Your task to perform on an android device: Open network settings Image 0: 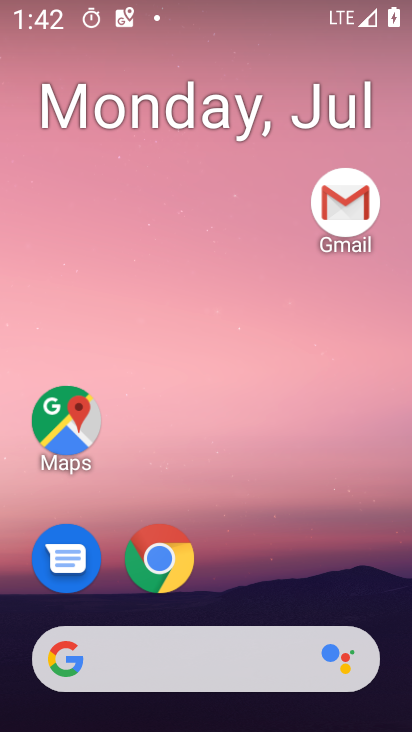
Step 0: drag from (259, 540) to (286, 172)
Your task to perform on an android device: Open network settings Image 1: 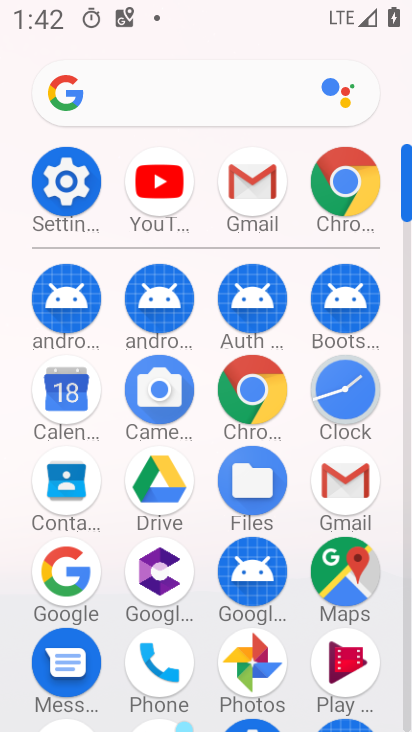
Step 1: click (73, 182)
Your task to perform on an android device: Open network settings Image 2: 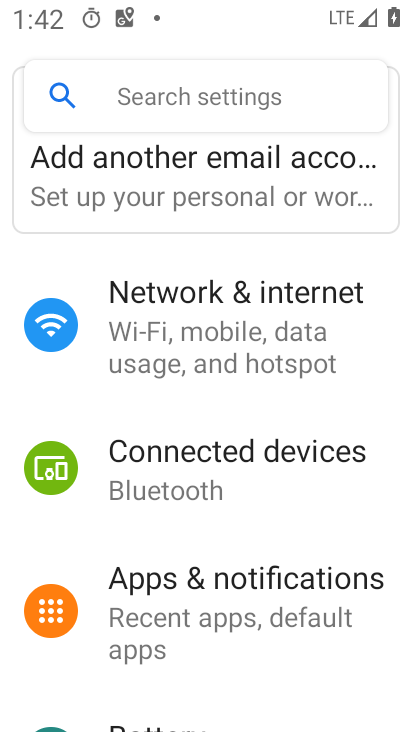
Step 2: drag from (333, 504) to (359, 343)
Your task to perform on an android device: Open network settings Image 3: 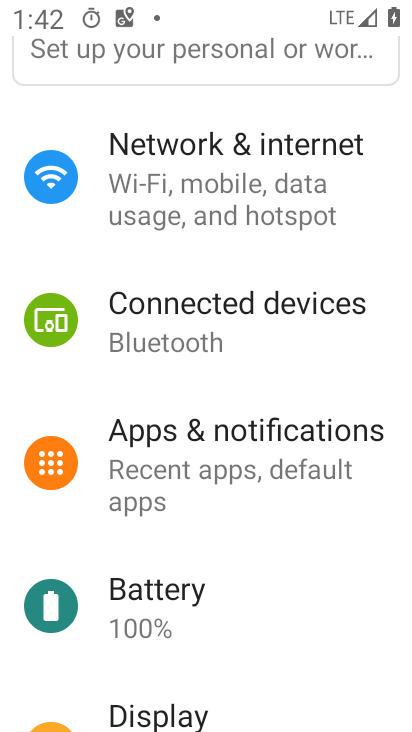
Step 3: drag from (374, 513) to (372, 412)
Your task to perform on an android device: Open network settings Image 4: 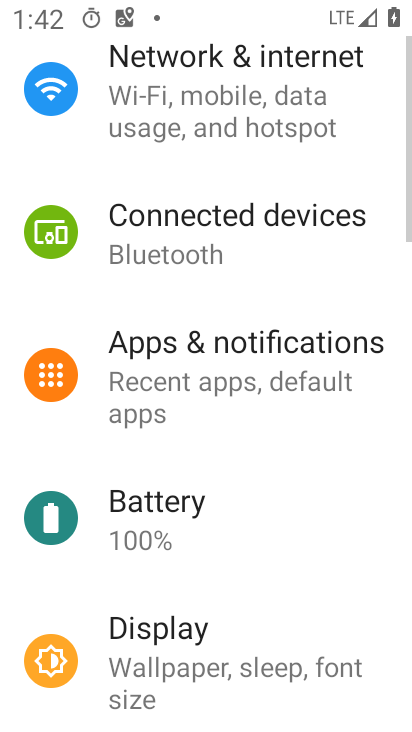
Step 4: drag from (367, 517) to (364, 440)
Your task to perform on an android device: Open network settings Image 5: 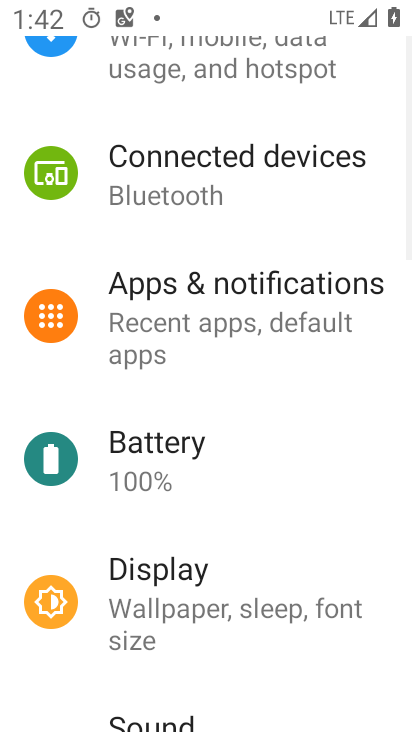
Step 5: drag from (360, 518) to (348, 424)
Your task to perform on an android device: Open network settings Image 6: 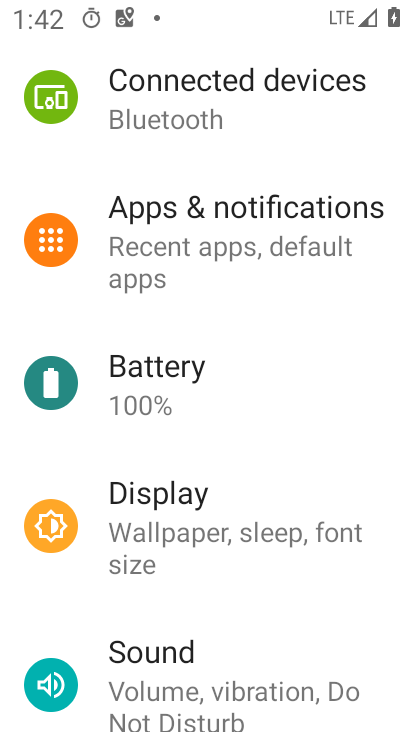
Step 6: drag from (332, 498) to (321, 415)
Your task to perform on an android device: Open network settings Image 7: 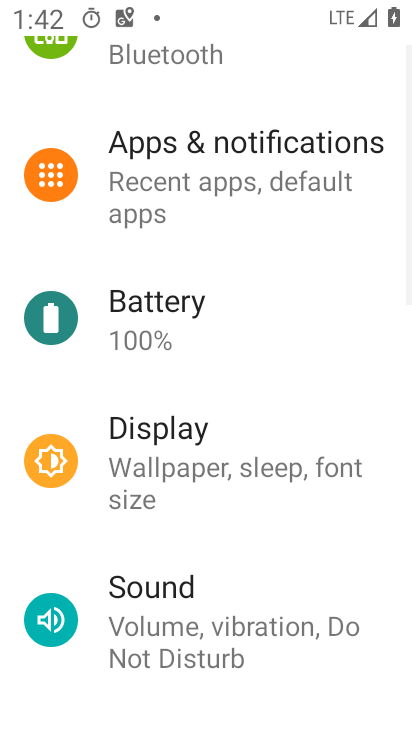
Step 7: drag from (329, 510) to (333, 415)
Your task to perform on an android device: Open network settings Image 8: 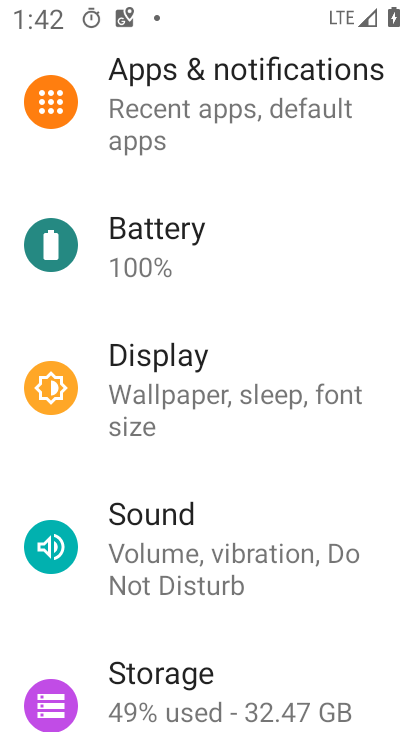
Step 8: drag from (326, 477) to (318, 407)
Your task to perform on an android device: Open network settings Image 9: 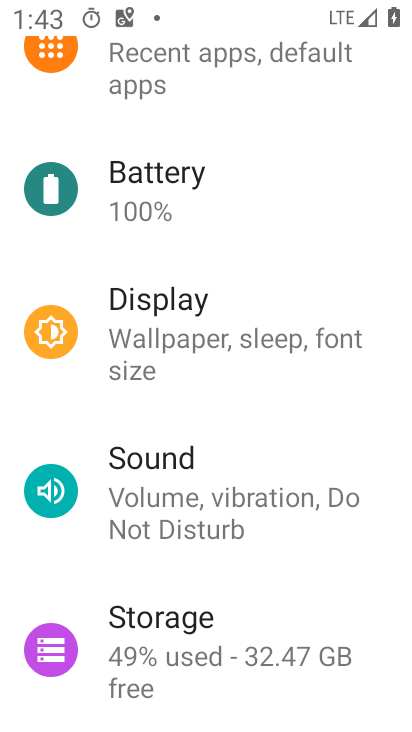
Step 9: drag from (326, 253) to (327, 355)
Your task to perform on an android device: Open network settings Image 10: 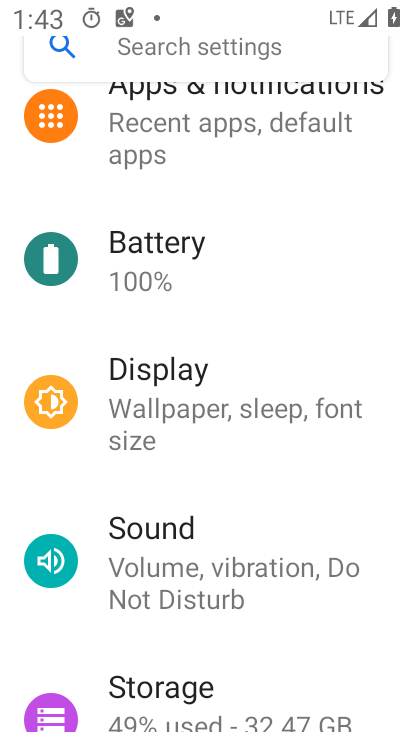
Step 10: drag from (329, 222) to (320, 324)
Your task to perform on an android device: Open network settings Image 11: 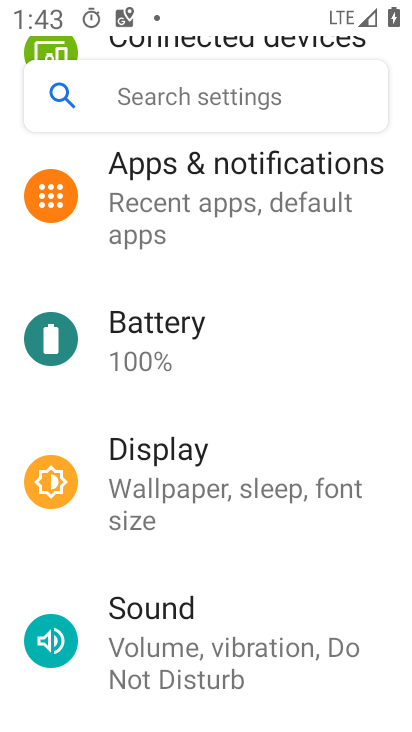
Step 11: drag from (330, 238) to (305, 403)
Your task to perform on an android device: Open network settings Image 12: 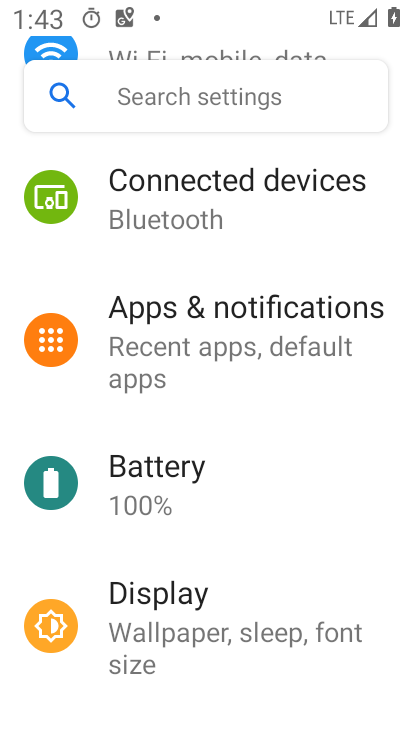
Step 12: drag from (301, 206) to (304, 320)
Your task to perform on an android device: Open network settings Image 13: 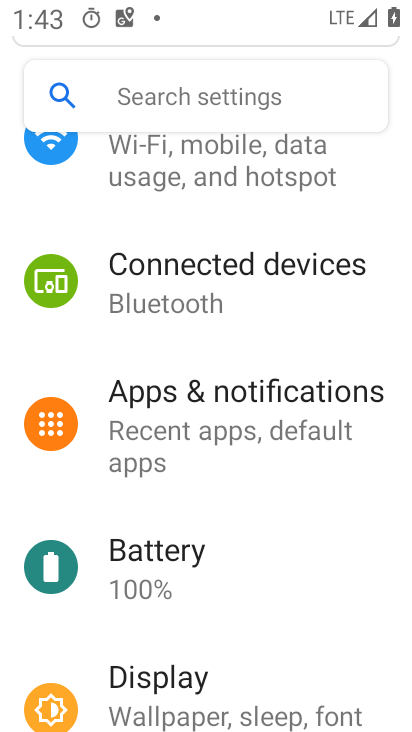
Step 13: drag from (361, 176) to (380, 370)
Your task to perform on an android device: Open network settings Image 14: 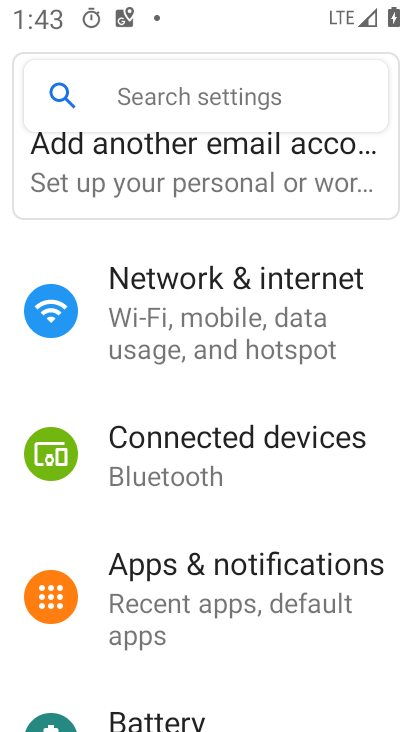
Step 14: click (223, 322)
Your task to perform on an android device: Open network settings Image 15: 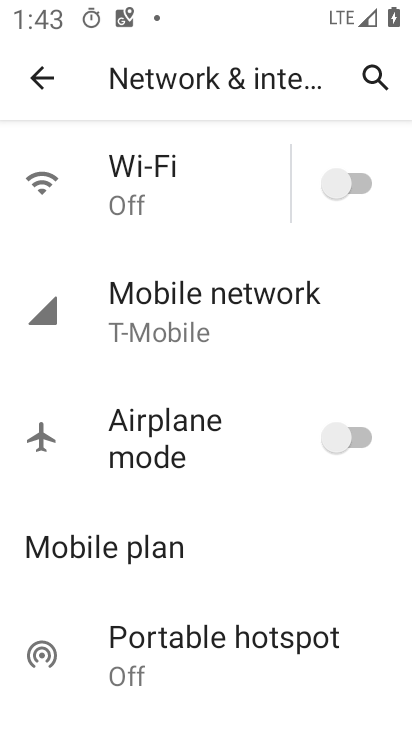
Step 15: task complete